Your task to perform on an android device: turn on wifi Image 0: 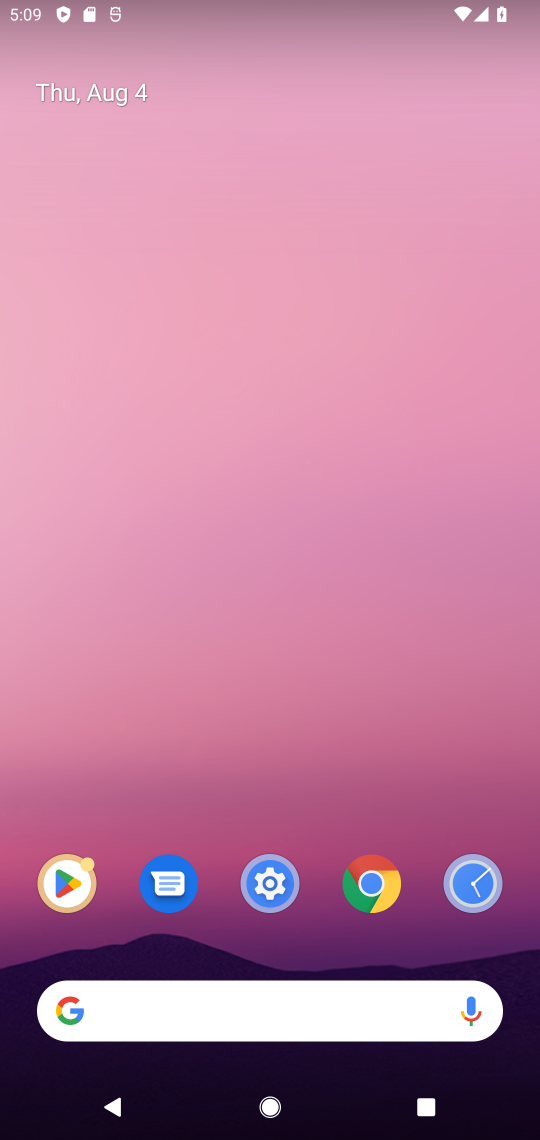
Step 0: click (273, 893)
Your task to perform on an android device: turn on wifi Image 1: 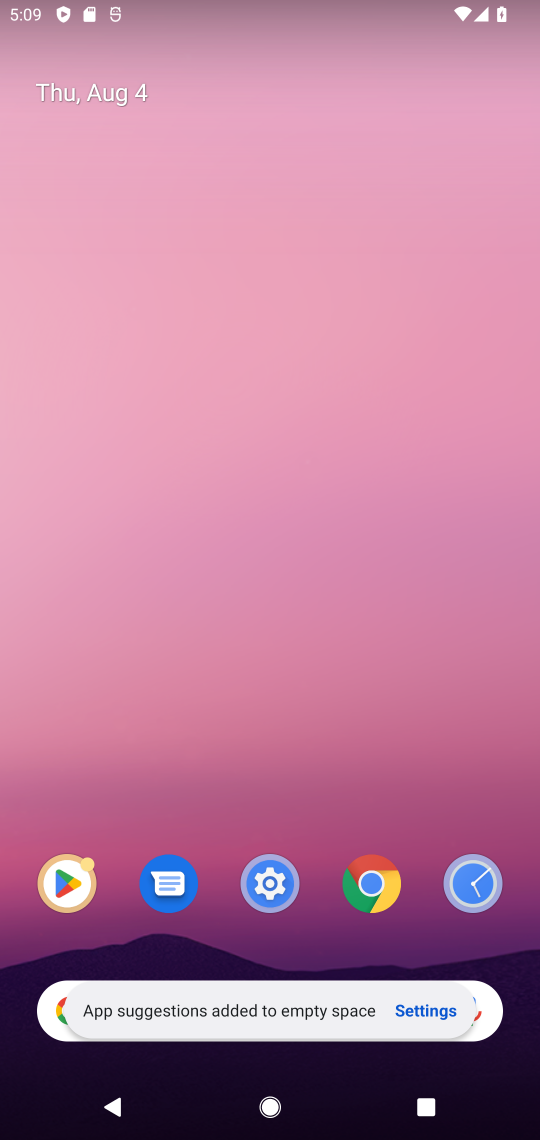
Step 1: click (273, 893)
Your task to perform on an android device: turn on wifi Image 2: 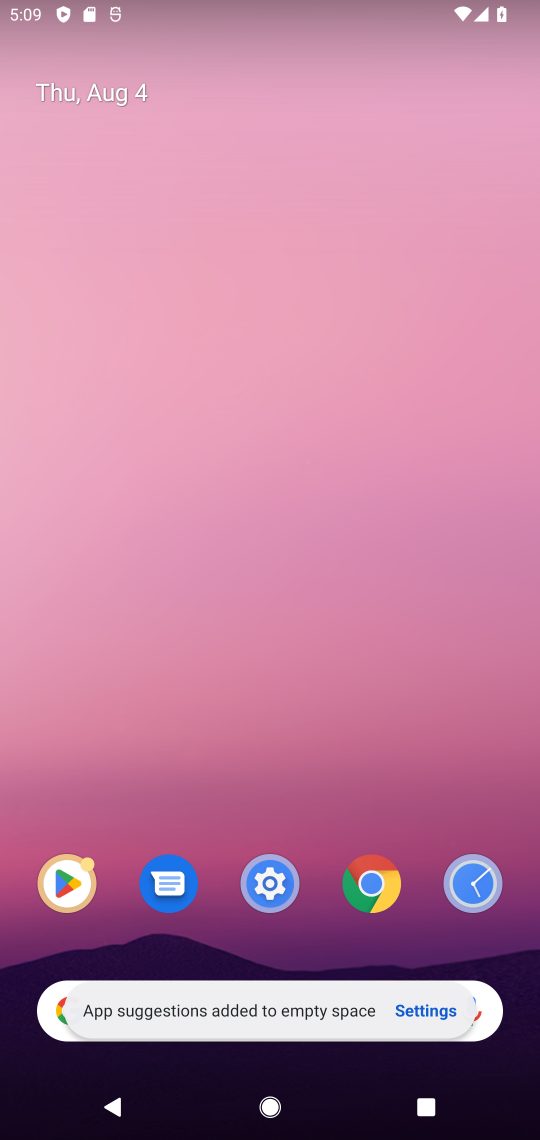
Step 2: click (273, 893)
Your task to perform on an android device: turn on wifi Image 3: 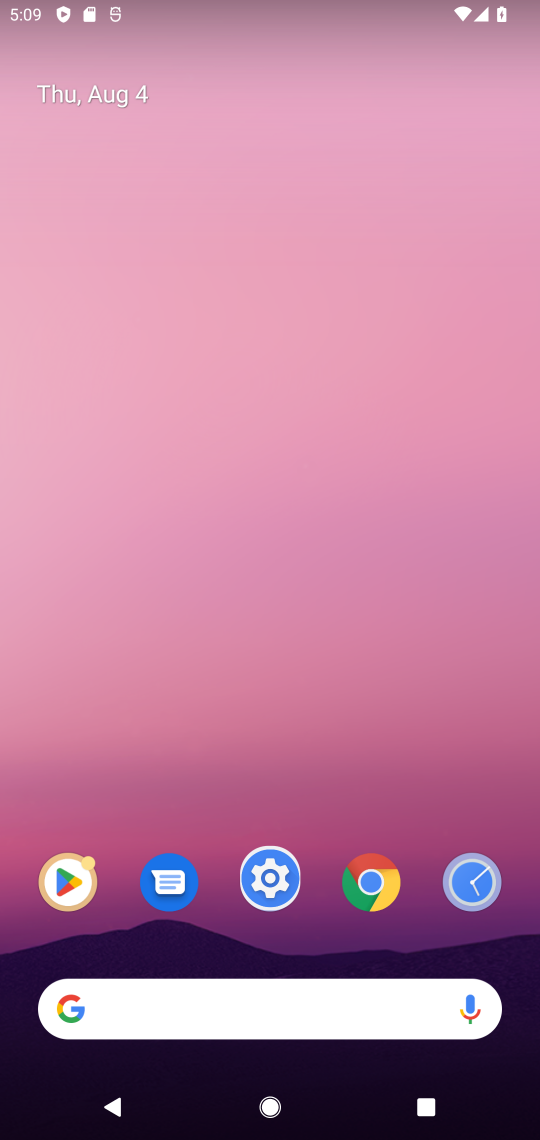
Step 3: click (273, 893)
Your task to perform on an android device: turn on wifi Image 4: 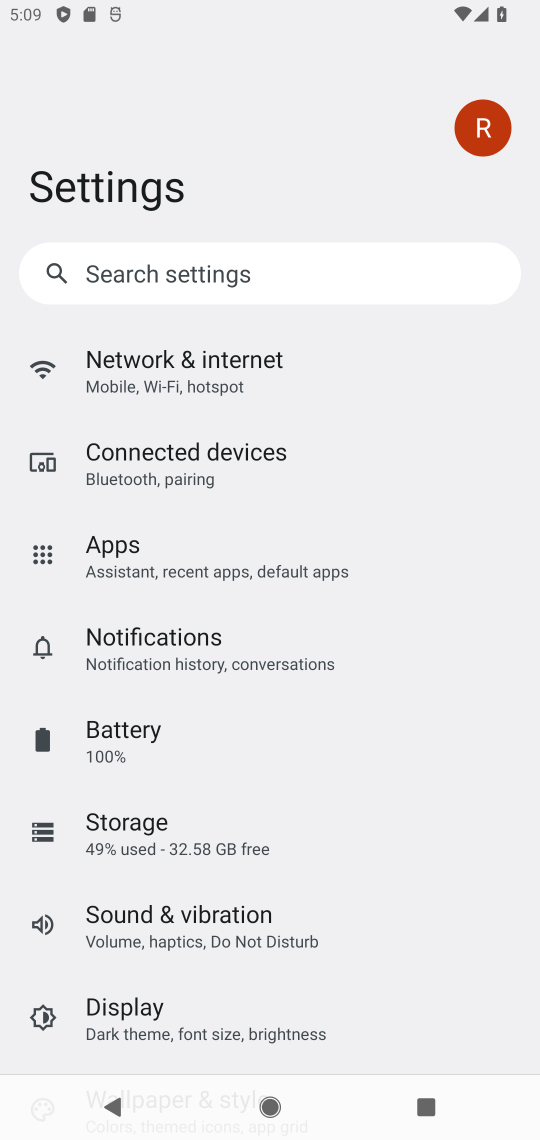
Step 4: click (260, 386)
Your task to perform on an android device: turn on wifi Image 5: 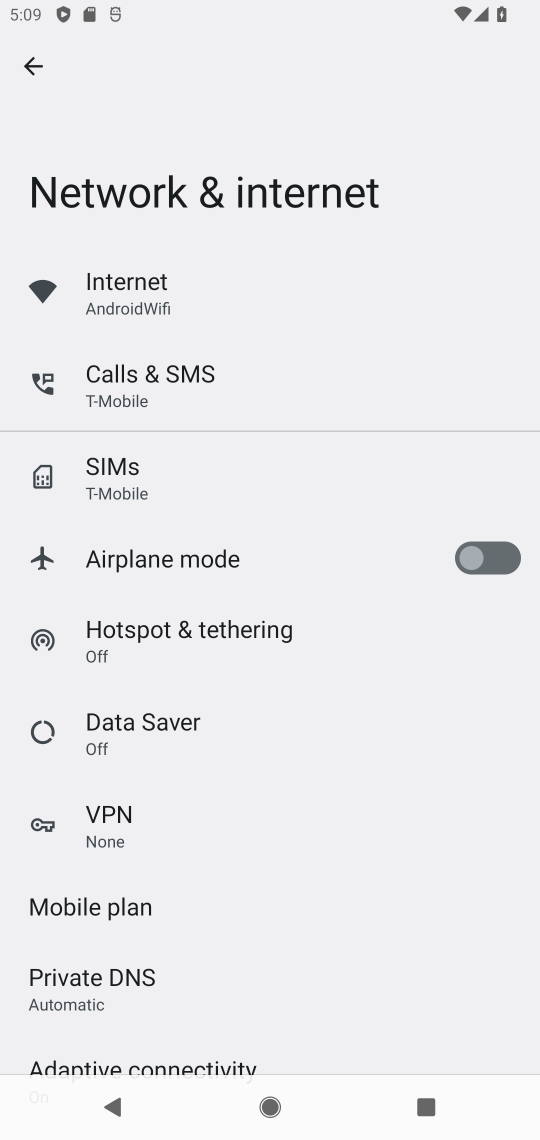
Step 5: click (269, 282)
Your task to perform on an android device: turn on wifi Image 6: 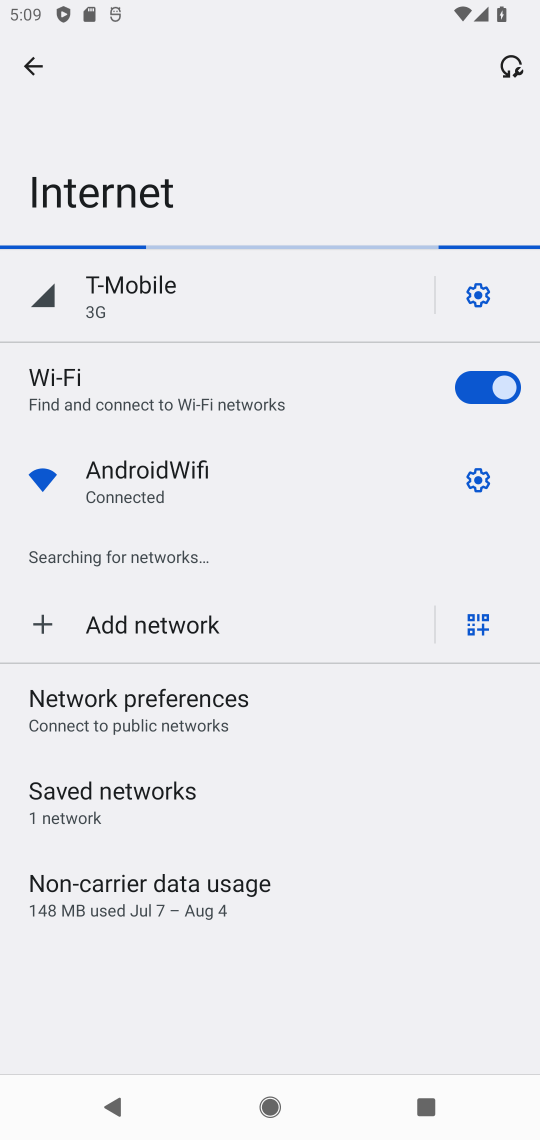
Step 6: task complete